Your task to perform on an android device: set an alarm Image 0: 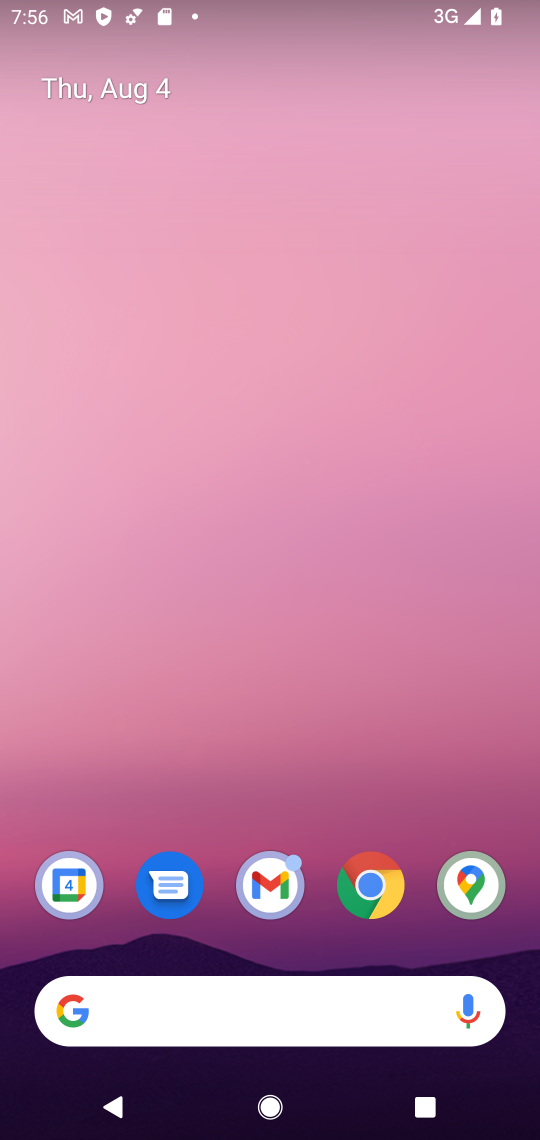
Step 0: press home button
Your task to perform on an android device: set an alarm Image 1: 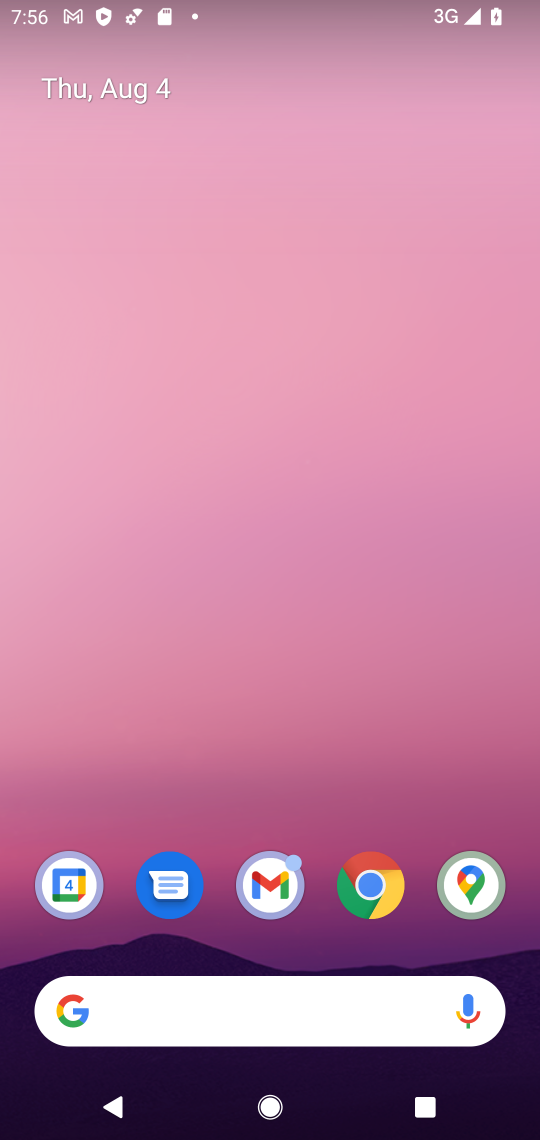
Step 1: drag from (315, 960) to (216, 185)
Your task to perform on an android device: set an alarm Image 2: 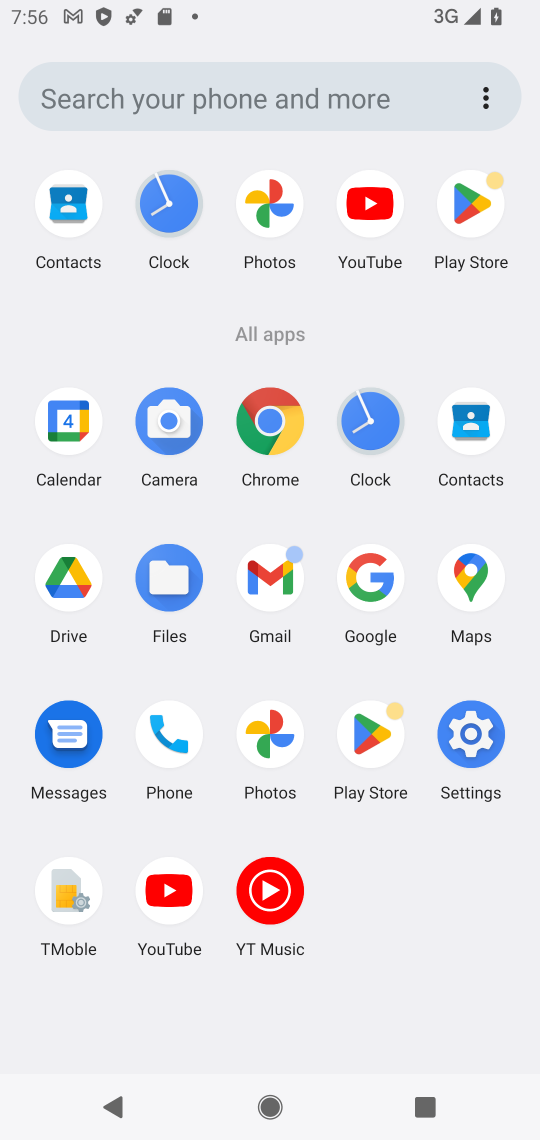
Step 2: click (368, 421)
Your task to perform on an android device: set an alarm Image 3: 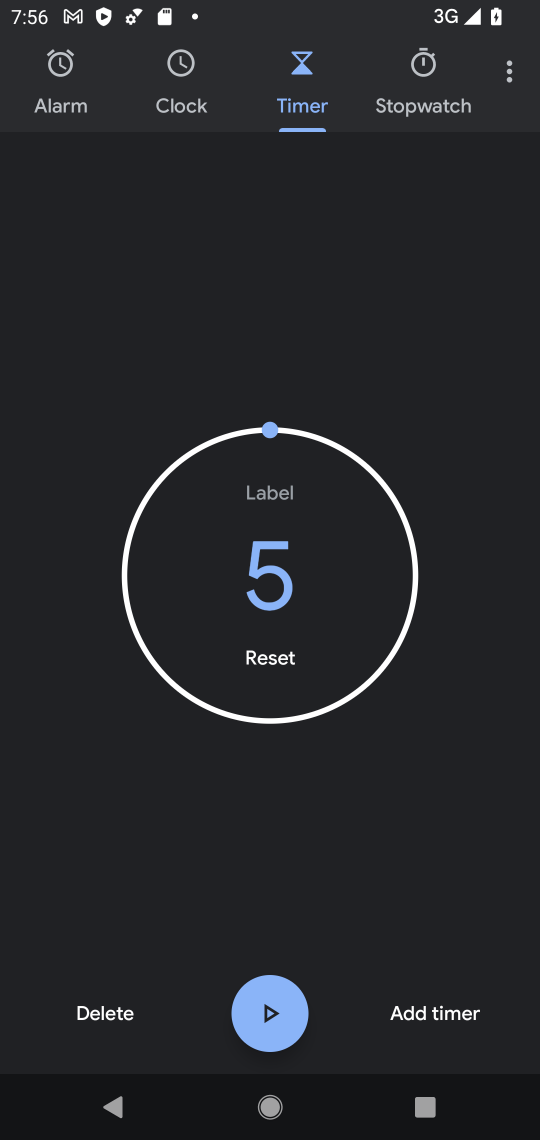
Step 3: click (42, 98)
Your task to perform on an android device: set an alarm Image 4: 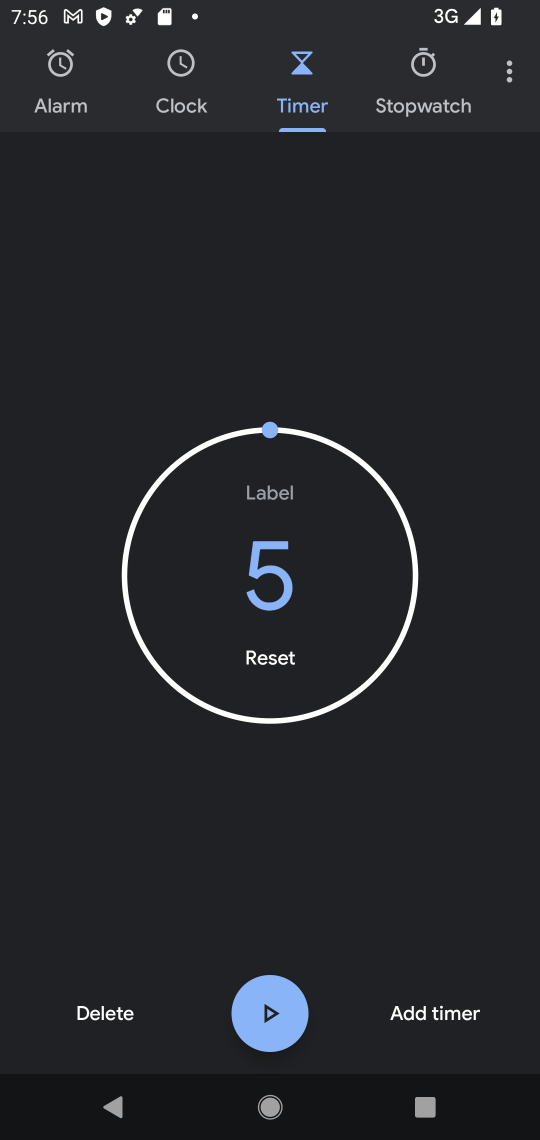
Step 4: click (70, 85)
Your task to perform on an android device: set an alarm Image 5: 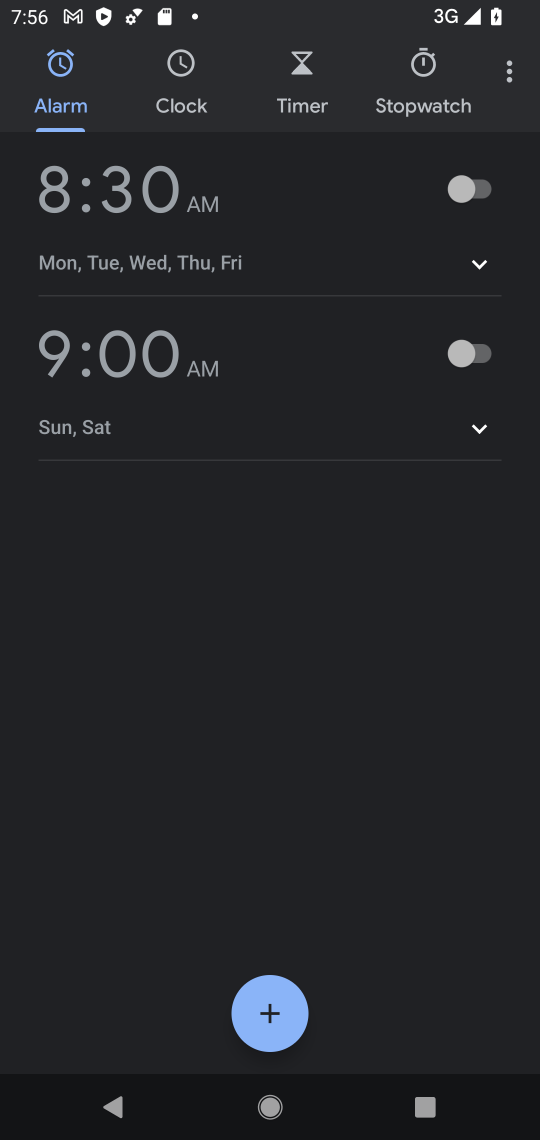
Step 5: click (275, 1025)
Your task to perform on an android device: set an alarm Image 6: 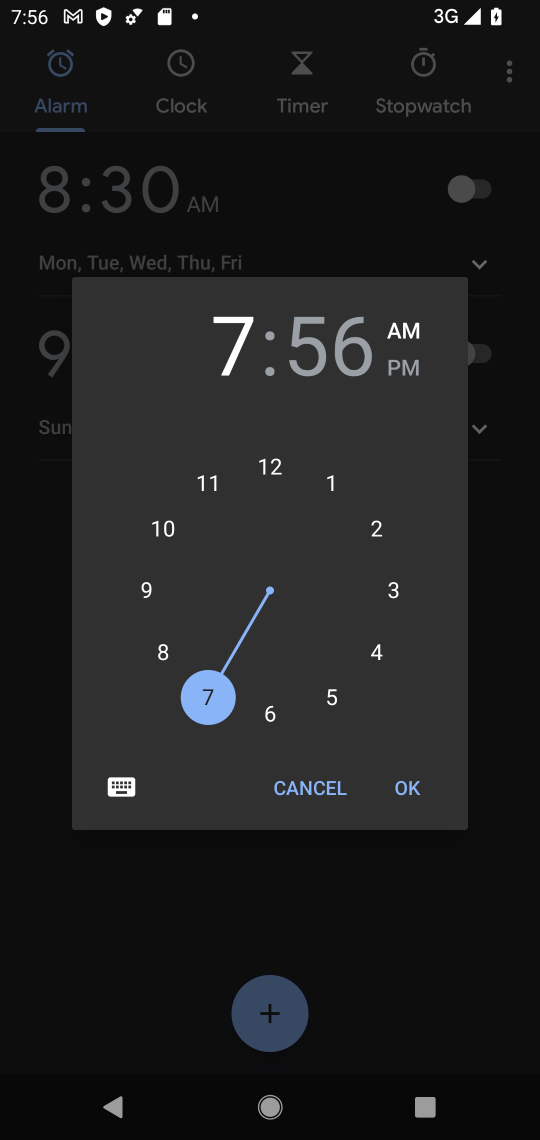
Step 6: click (324, 705)
Your task to perform on an android device: set an alarm Image 7: 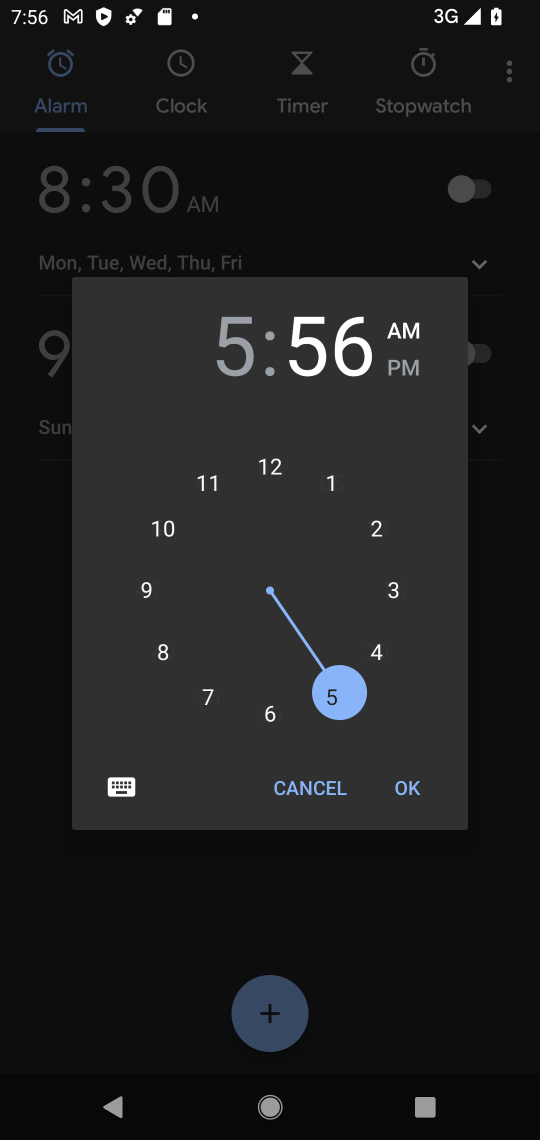
Step 7: click (404, 784)
Your task to perform on an android device: set an alarm Image 8: 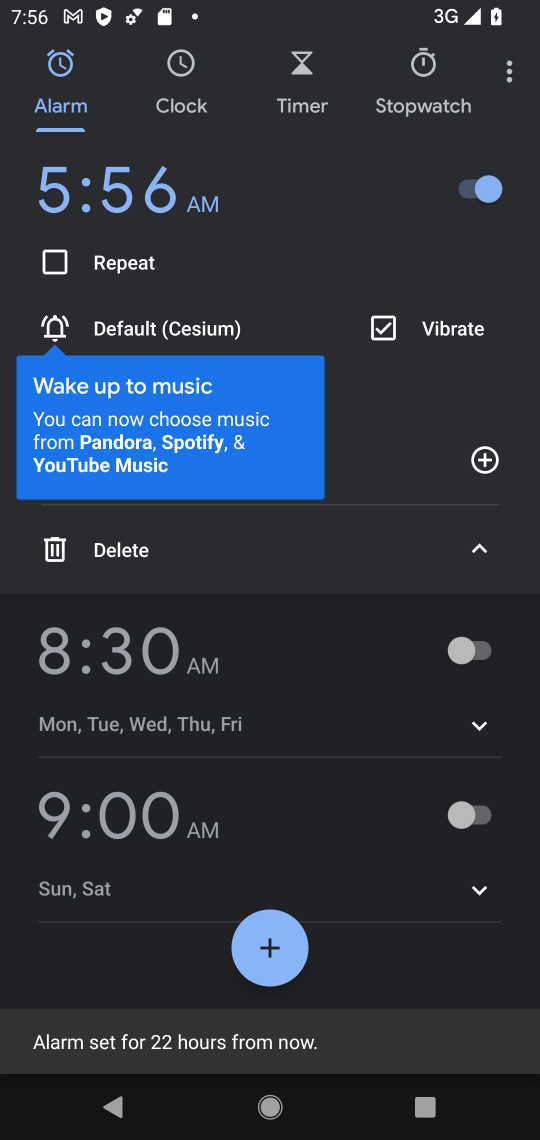
Step 8: task complete